Your task to perform on an android device: create a new album in the google photos Image 0: 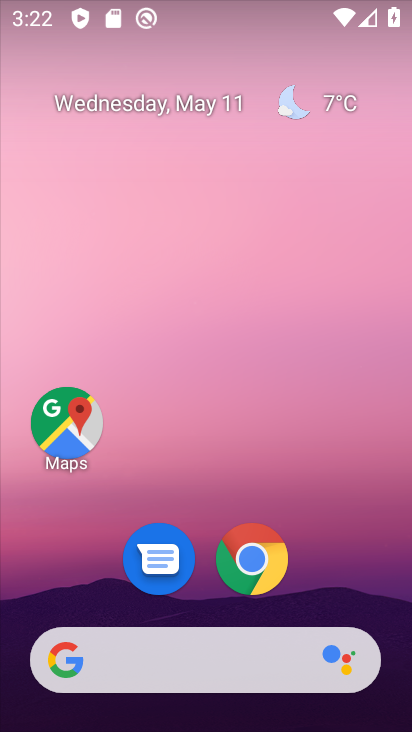
Step 0: drag from (221, 626) to (226, 267)
Your task to perform on an android device: create a new album in the google photos Image 1: 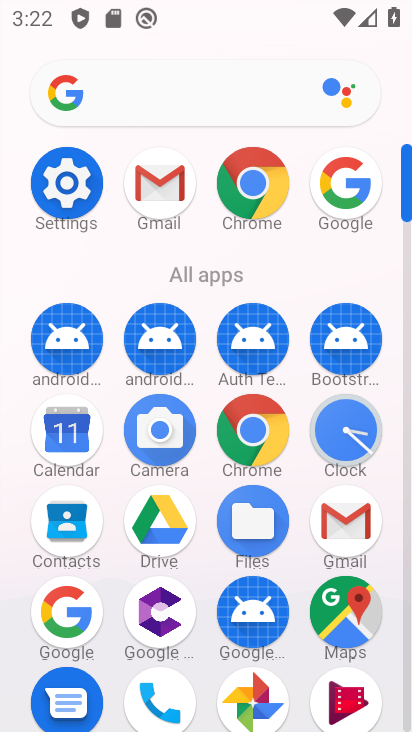
Step 1: drag from (211, 631) to (196, 168)
Your task to perform on an android device: create a new album in the google photos Image 2: 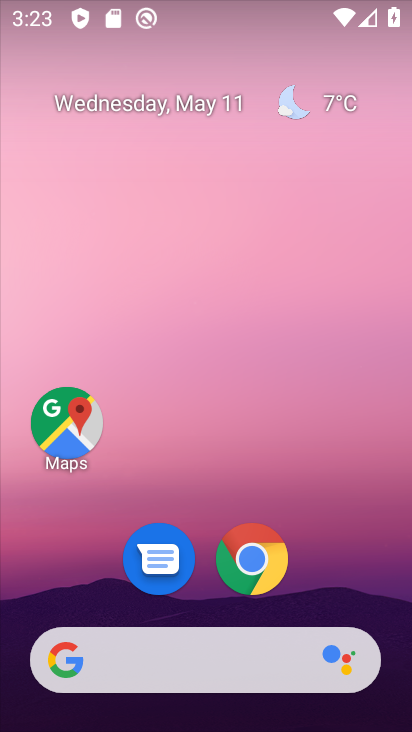
Step 2: click (260, 338)
Your task to perform on an android device: create a new album in the google photos Image 3: 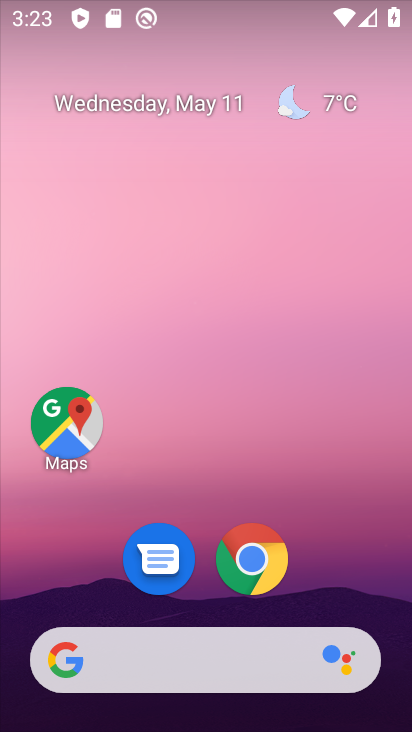
Step 3: drag from (201, 622) to (251, 174)
Your task to perform on an android device: create a new album in the google photos Image 4: 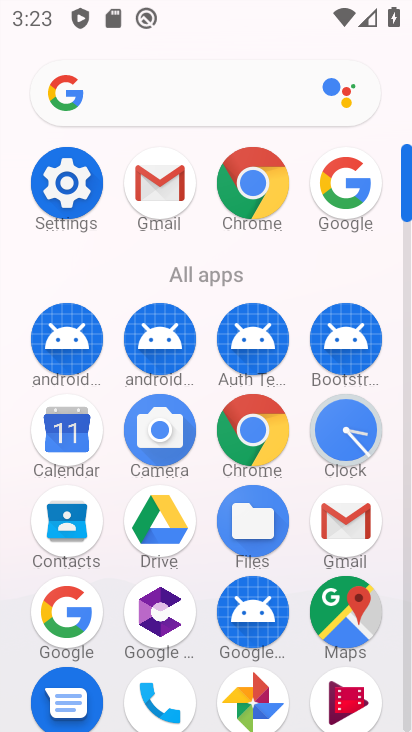
Step 4: click (263, 676)
Your task to perform on an android device: create a new album in the google photos Image 5: 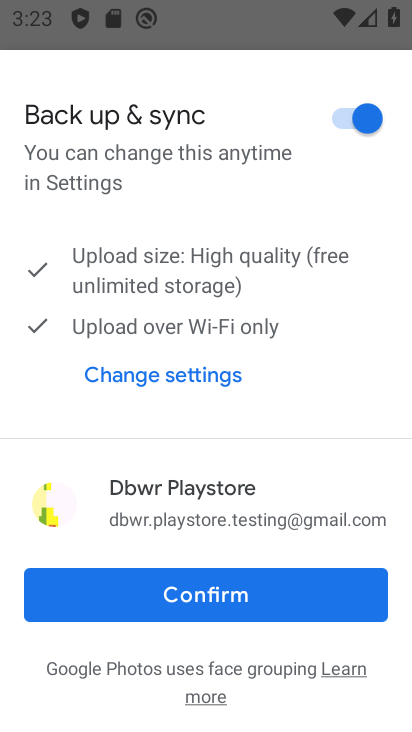
Step 5: click (195, 603)
Your task to perform on an android device: create a new album in the google photos Image 6: 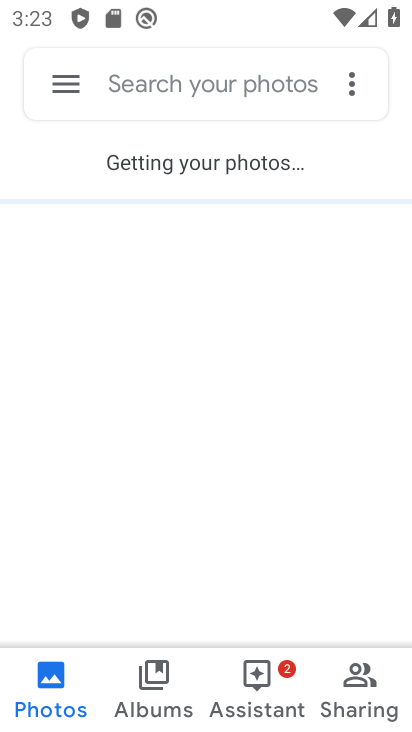
Step 6: click (69, 81)
Your task to perform on an android device: create a new album in the google photos Image 7: 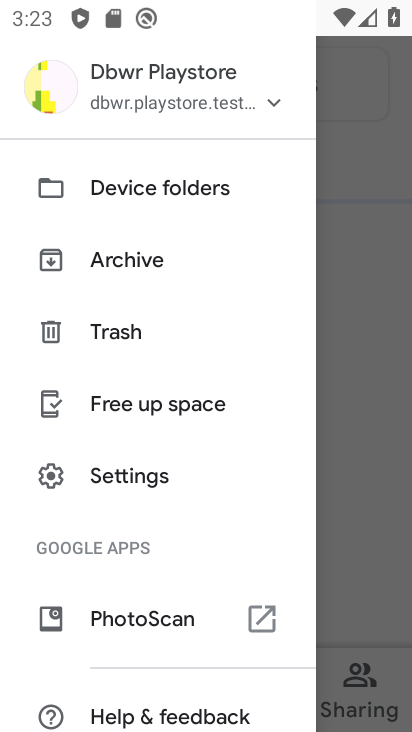
Step 7: click (358, 108)
Your task to perform on an android device: create a new album in the google photos Image 8: 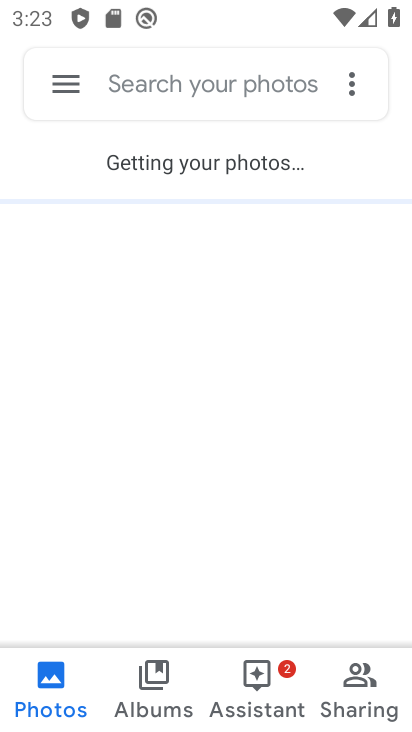
Step 8: click (146, 676)
Your task to perform on an android device: create a new album in the google photos Image 9: 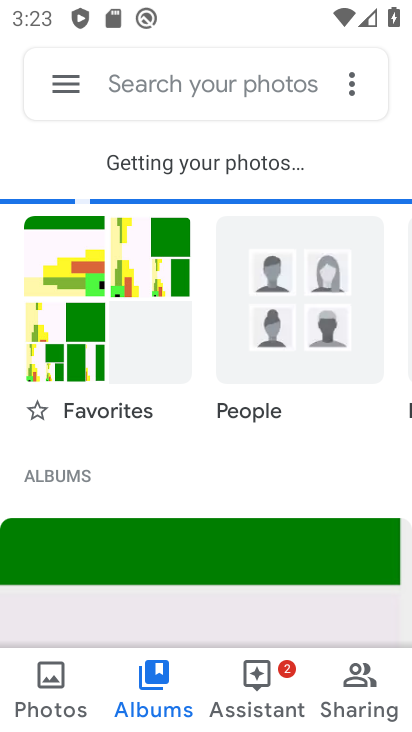
Step 9: task complete